Your task to perform on an android device: turn vacation reply on in the gmail app Image 0: 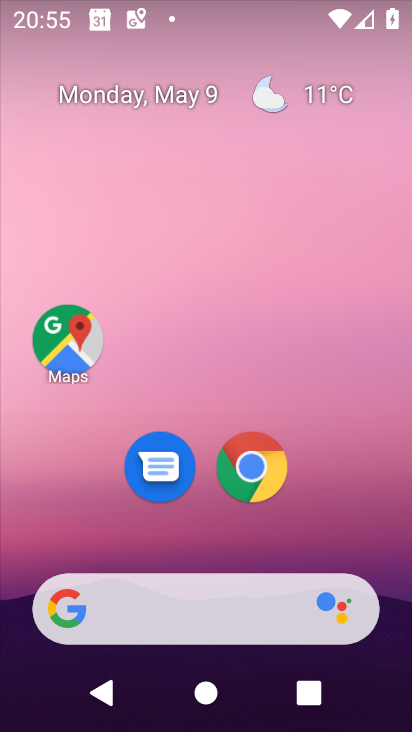
Step 0: drag from (319, 547) to (340, 202)
Your task to perform on an android device: turn vacation reply on in the gmail app Image 1: 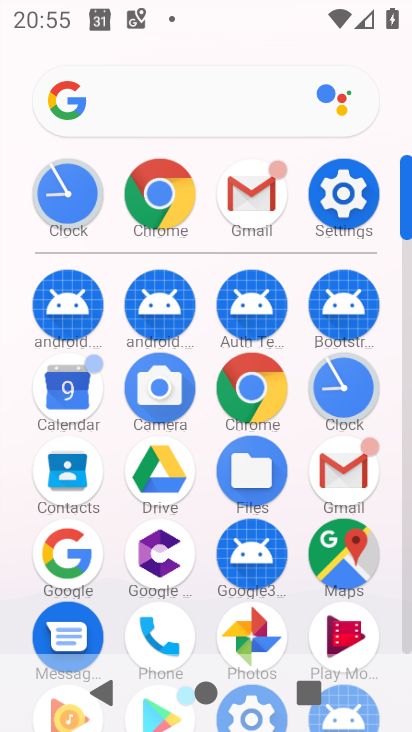
Step 1: click (353, 459)
Your task to perform on an android device: turn vacation reply on in the gmail app Image 2: 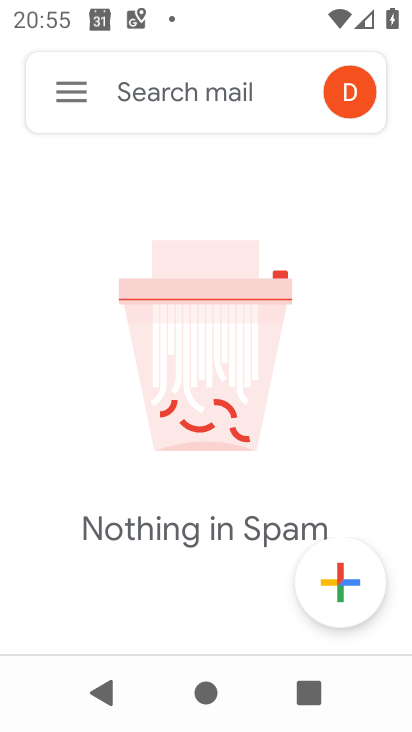
Step 2: click (64, 84)
Your task to perform on an android device: turn vacation reply on in the gmail app Image 3: 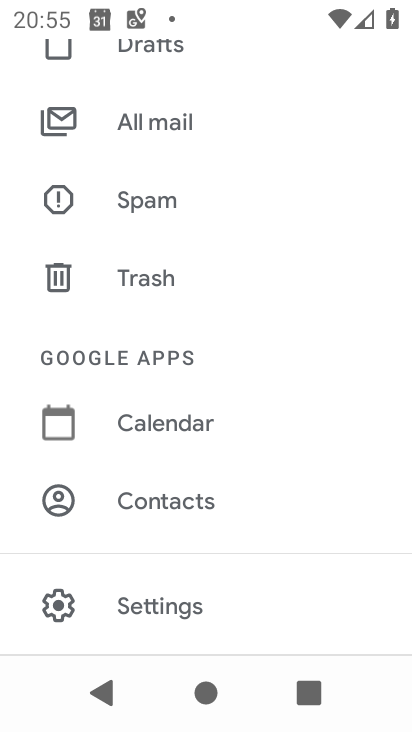
Step 3: click (191, 610)
Your task to perform on an android device: turn vacation reply on in the gmail app Image 4: 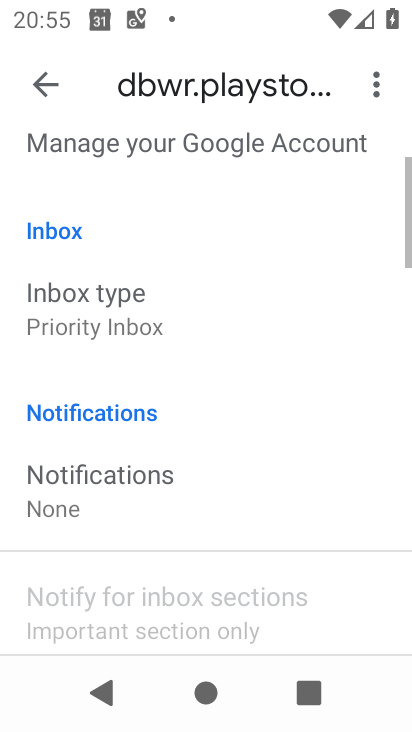
Step 4: drag from (193, 599) to (278, 81)
Your task to perform on an android device: turn vacation reply on in the gmail app Image 5: 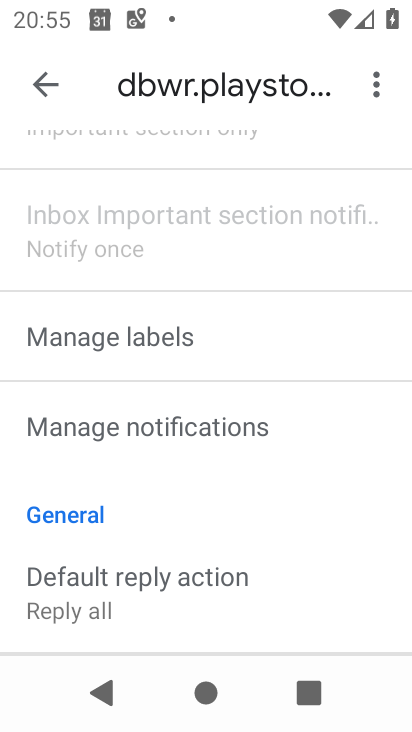
Step 5: drag from (233, 587) to (291, 141)
Your task to perform on an android device: turn vacation reply on in the gmail app Image 6: 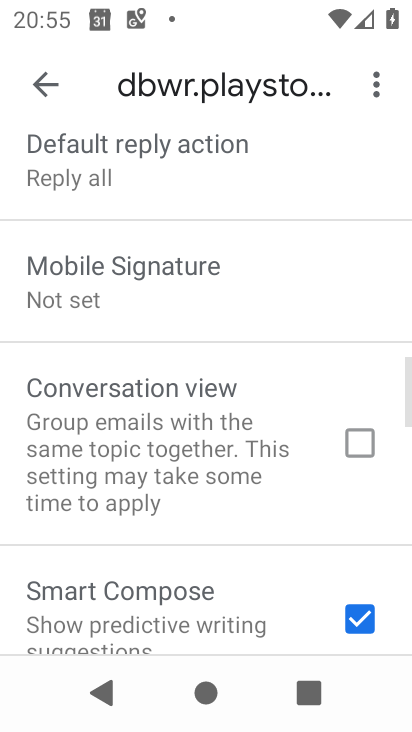
Step 6: drag from (271, 601) to (295, 93)
Your task to perform on an android device: turn vacation reply on in the gmail app Image 7: 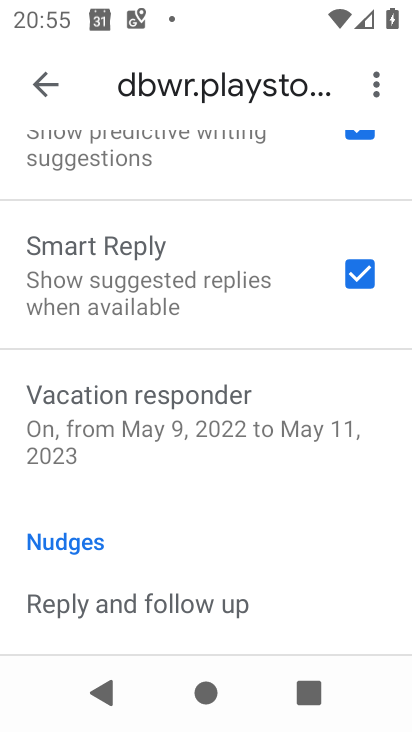
Step 7: click (193, 451)
Your task to perform on an android device: turn vacation reply on in the gmail app Image 8: 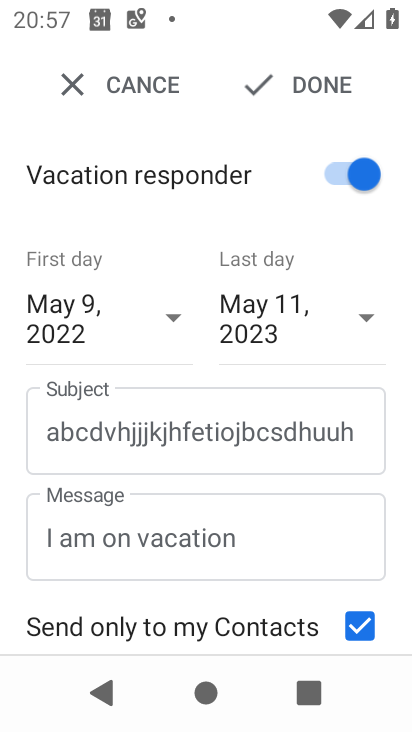
Step 8: task complete